Your task to perform on an android device: Do I have any events this weekend? Image 0: 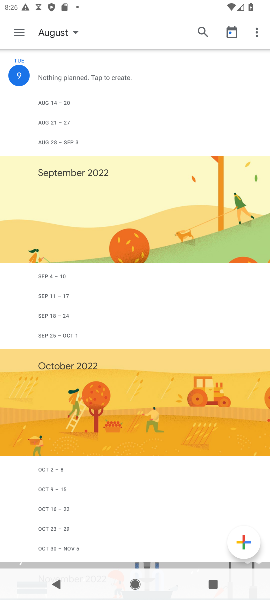
Step 0: press back button
Your task to perform on an android device: Do I have any events this weekend? Image 1: 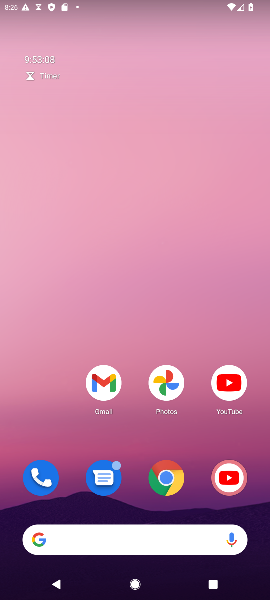
Step 1: drag from (187, 337) to (163, 140)
Your task to perform on an android device: Do I have any events this weekend? Image 2: 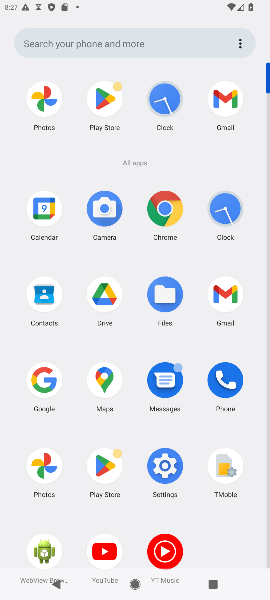
Step 2: click (40, 209)
Your task to perform on an android device: Do I have any events this weekend? Image 3: 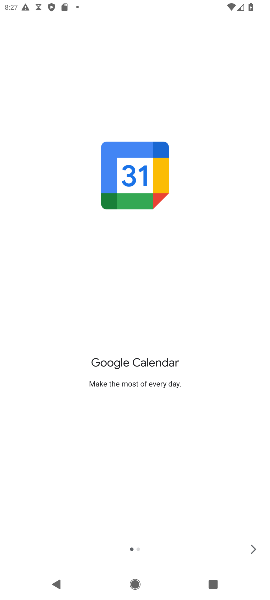
Step 3: click (40, 209)
Your task to perform on an android device: Do I have any events this weekend? Image 4: 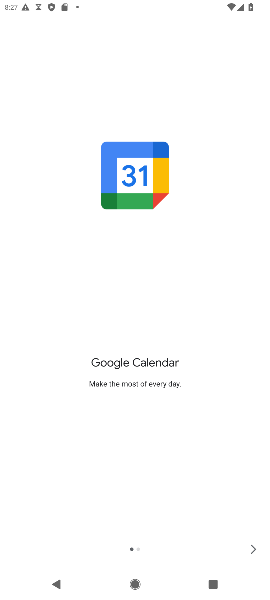
Step 4: click (252, 547)
Your task to perform on an android device: Do I have any events this weekend? Image 5: 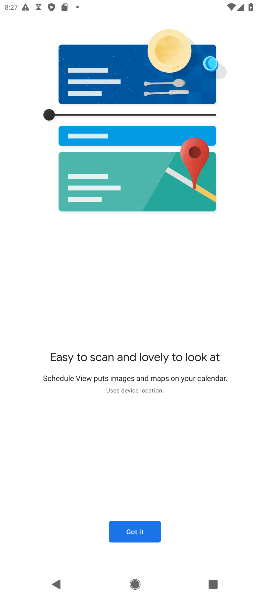
Step 5: click (252, 547)
Your task to perform on an android device: Do I have any events this weekend? Image 6: 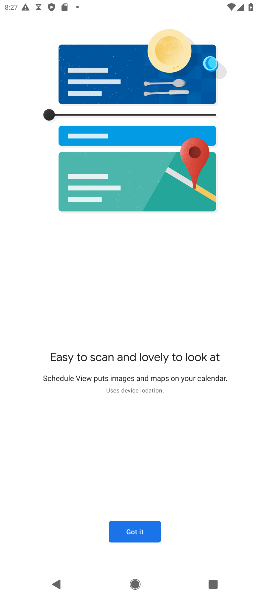
Step 6: click (135, 542)
Your task to perform on an android device: Do I have any events this weekend? Image 7: 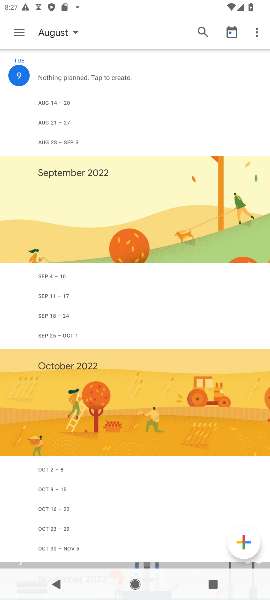
Step 7: click (22, 32)
Your task to perform on an android device: Do I have any events this weekend? Image 8: 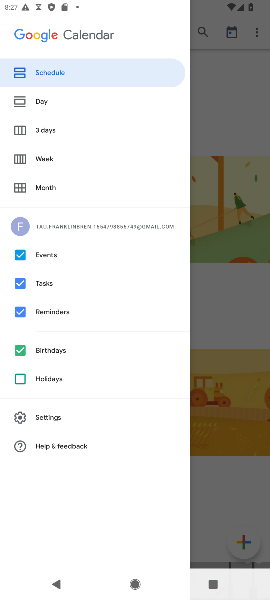
Step 8: click (17, 347)
Your task to perform on an android device: Do I have any events this weekend? Image 9: 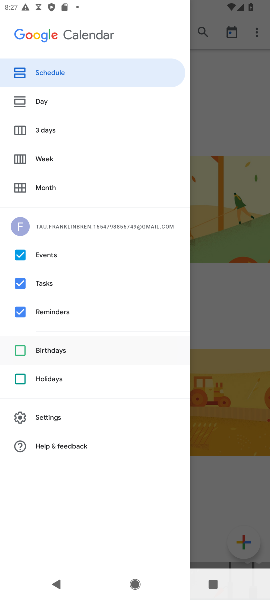
Step 9: click (19, 315)
Your task to perform on an android device: Do I have any events this weekend? Image 10: 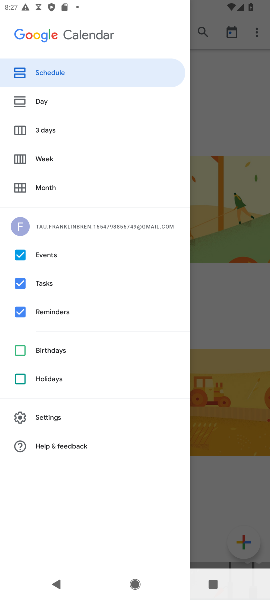
Step 10: click (20, 281)
Your task to perform on an android device: Do I have any events this weekend? Image 11: 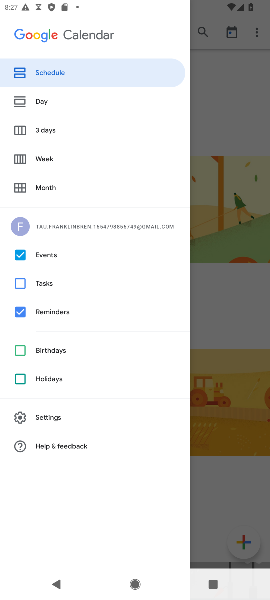
Step 11: click (19, 315)
Your task to perform on an android device: Do I have any events this weekend? Image 12: 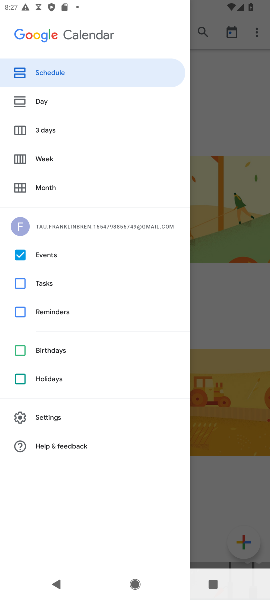
Step 12: click (54, 129)
Your task to perform on an android device: Do I have any events this weekend? Image 13: 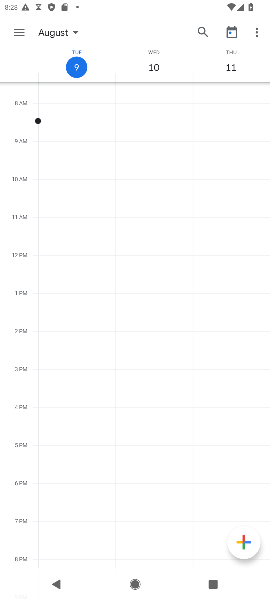
Step 13: task complete